Your task to perform on an android device: Go to privacy settings Image 0: 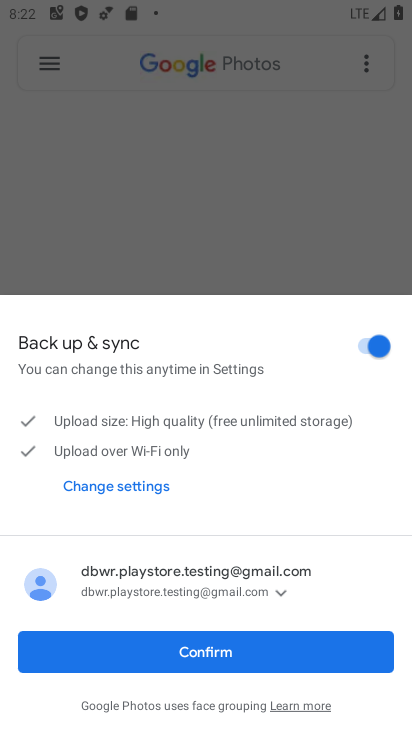
Step 0: press back button
Your task to perform on an android device: Go to privacy settings Image 1: 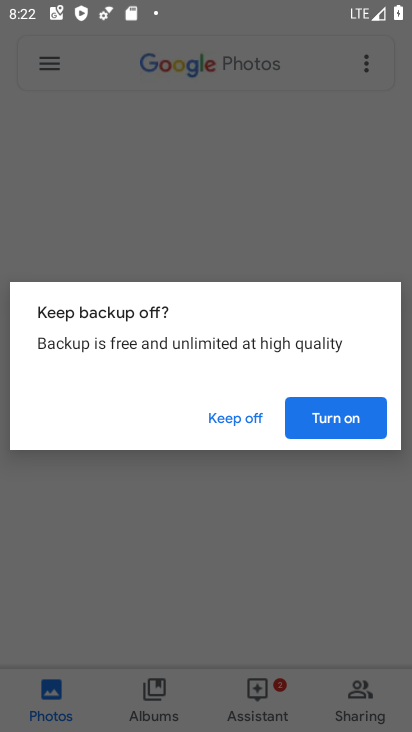
Step 1: press home button
Your task to perform on an android device: Go to privacy settings Image 2: 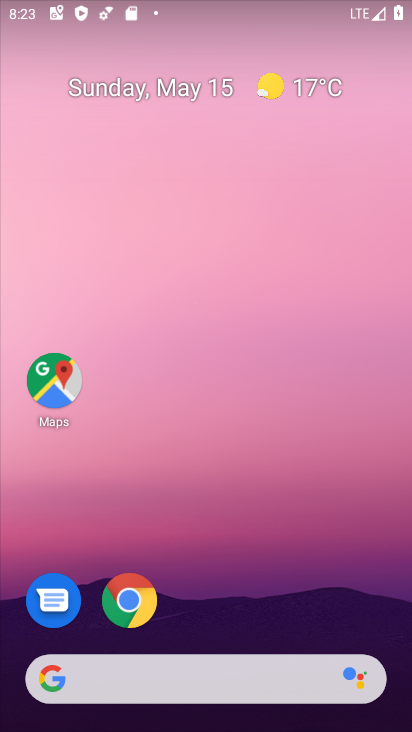
Step 2: drag from (214, 597) to (161, 104)
Your task to perform on an android device: Go to privacy settings Image 3: 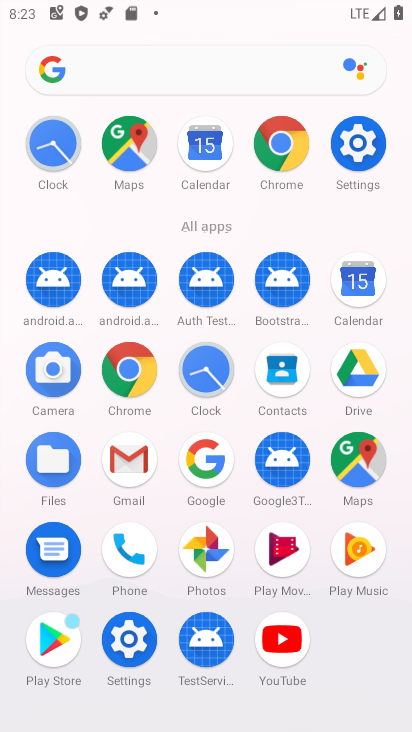
Step 3: click (130, 637)
Your task to perform on an android device: Go to privacy settings Image 4: 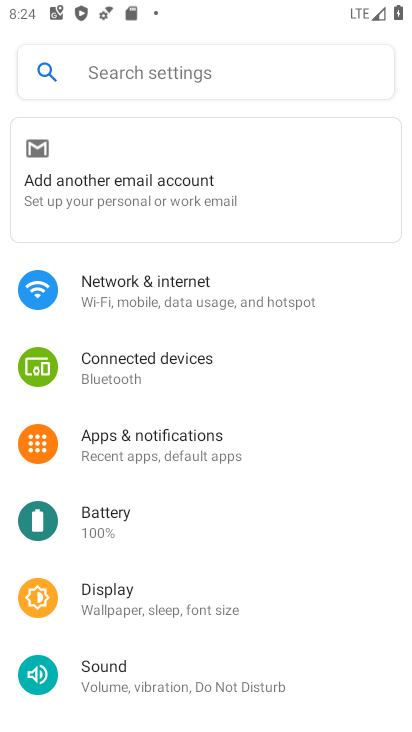
Step 4: drag from (146, 552) to (189, 438)
Your task to perform on an android device: Go to privacy settings Image 5: 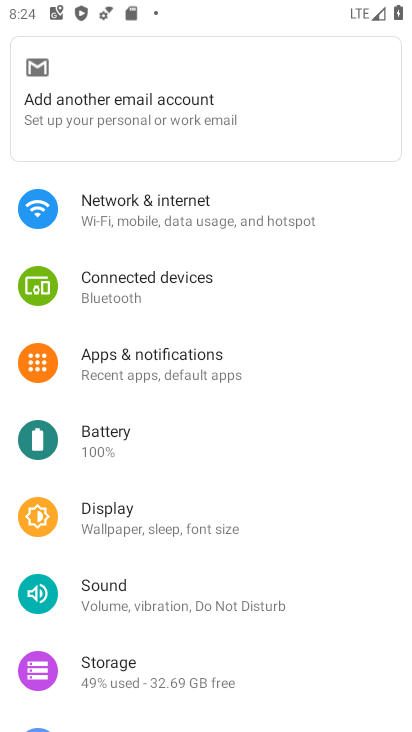
Step 5: drag from (139, 555) to (185, 460)
Your task to perform on an android device: Go to privacy settings Image 6: 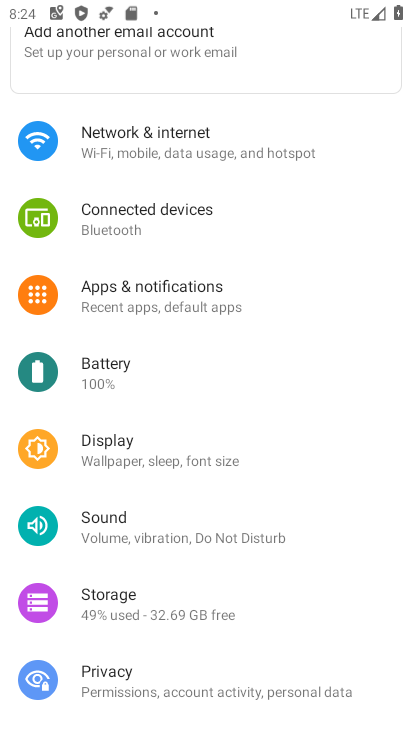
Step 6: click (115, 672)
Your task to perform on an android device: Go to privacy settings Image 7: 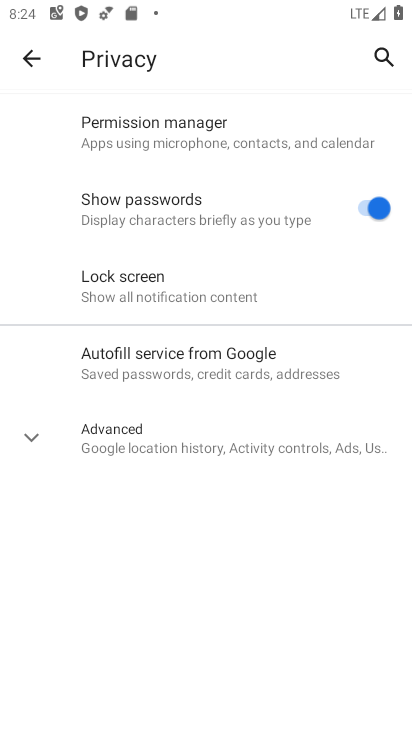
Step 7: task complete